Your task to perform on an android device: Open eBay Image 0: 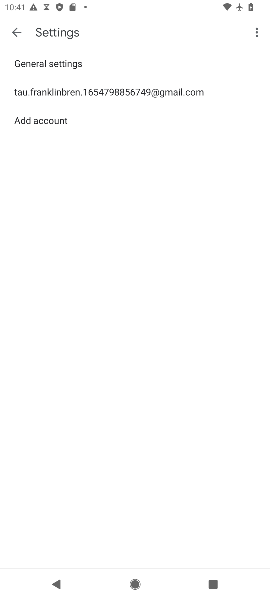
Step 0: press back button
Your task to perform on an android device: Open eBay Image 1: 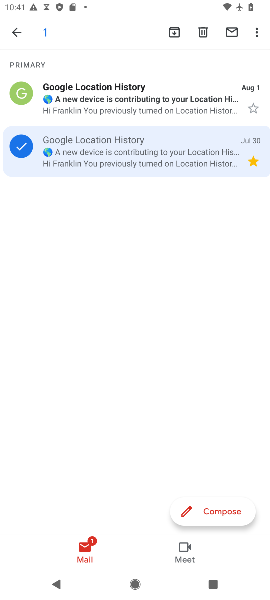
Step 1: press home button
Your task to perform on an android device: Open eBay Image 2: 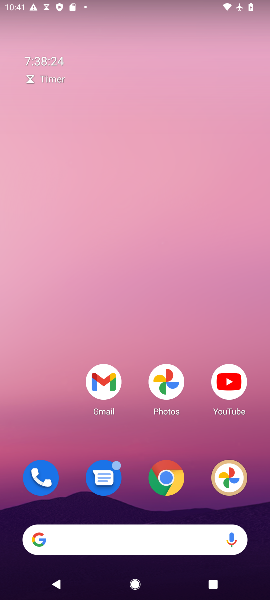
Step 2: click (165, 475)
Your task to perform on an android device: Open eBay Image 3: 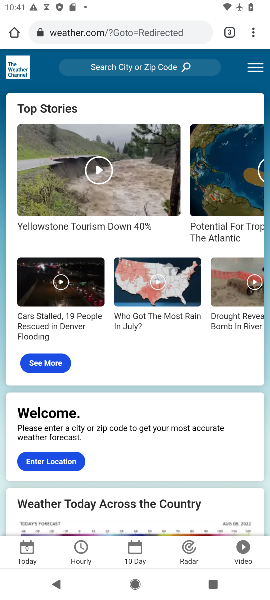
Step 3: click (232, 27)
Your task to perform on an android device: Open eBay Image 4: 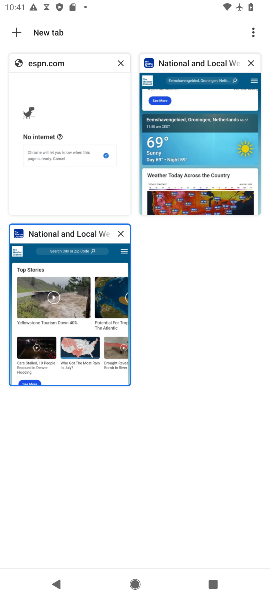
Step 4: click (28, 31)
Your task to perform on an android device: Open eBay Image 5: 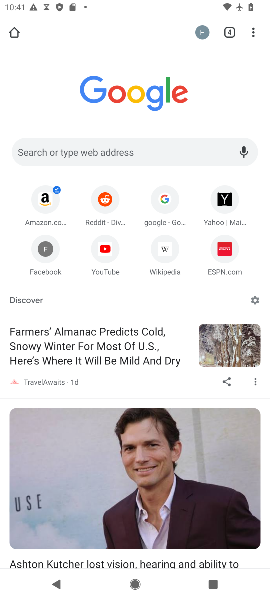
Step 5: click (138, 153)
Your task to perform on an android device: Open eBay Image 6: 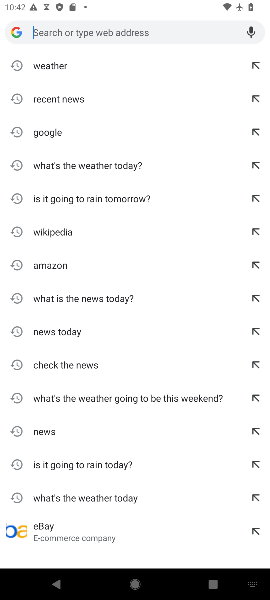
Step 6: type "eBay"
Your task to perform on an android device: Open eBay Image 7: 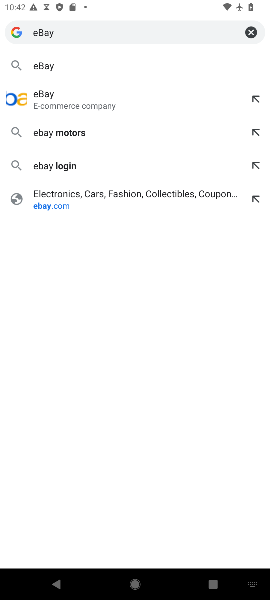
Step 7: click (50, 69)
Your task to perform on an android device: Open eBay Image 8: 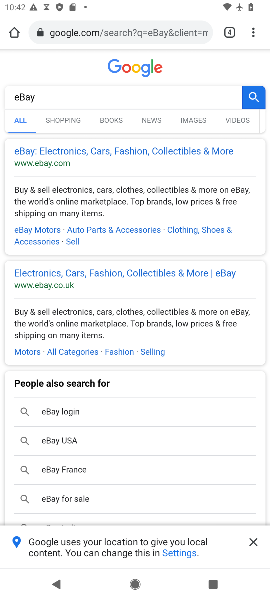
Step 8: click (146, 148)
Your task to perform on an android device: Open eBay Image 9: 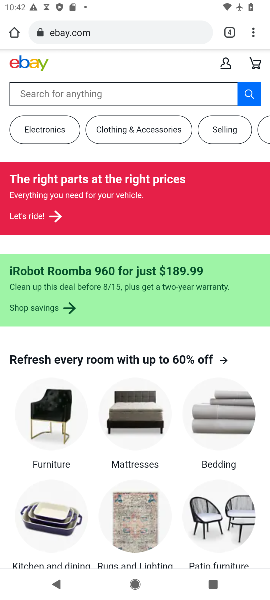
Step 9: task complete